Your task to perform on an android device: Open the Play Movies app and select the watchlist tab. Image 0: 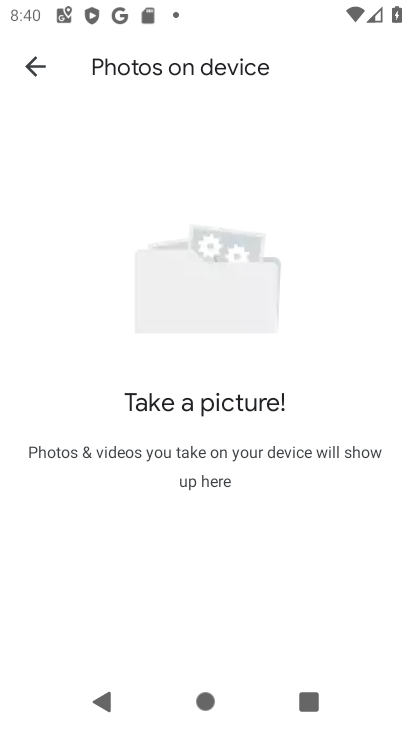
Step 0: press home button
Your task to perform on an android device: Open the Play Movies app and select the watchlist tab. Image 1: 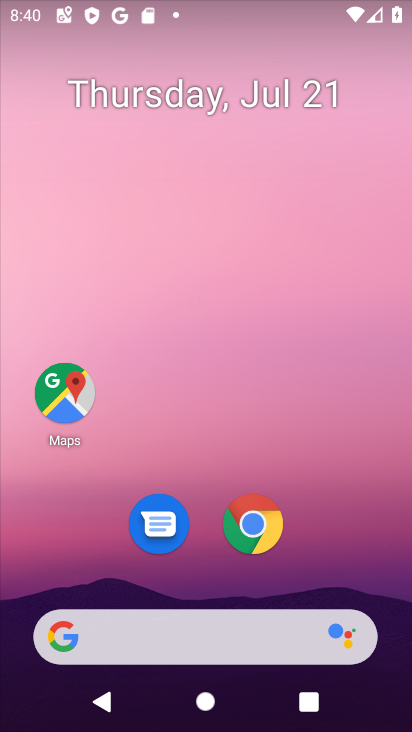
Step 1: drag from (207, 595) to (307, 156)
Your task to perform on an android device: Open the Play Movies app and select the watchlist tab. Image 2: 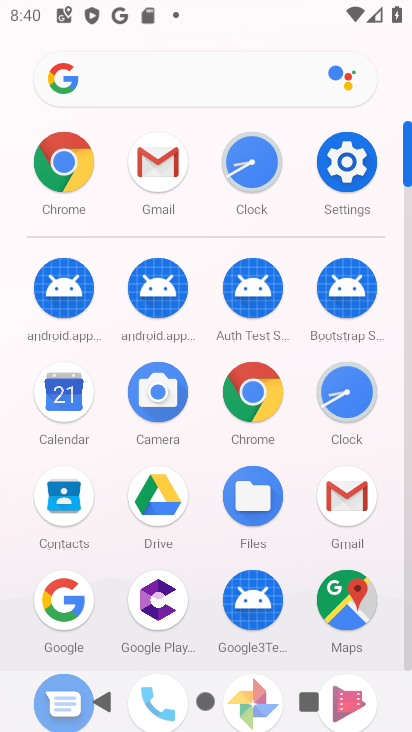
Step 2: drag from (305, 661) to (389, 138)
Your task to perform on an android device: Open the Play Movies app and select the watchlist tab. Image 3: 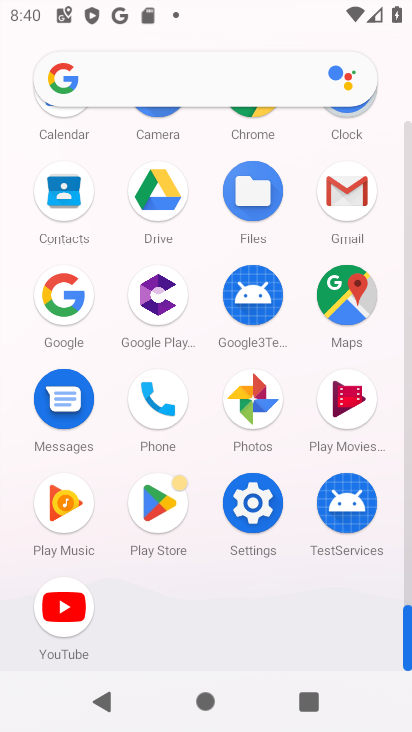
Step 3: click (344, 408)
Your task to perform on an android device: Open the Play Movies app and select the watchlist tab. Image 4: 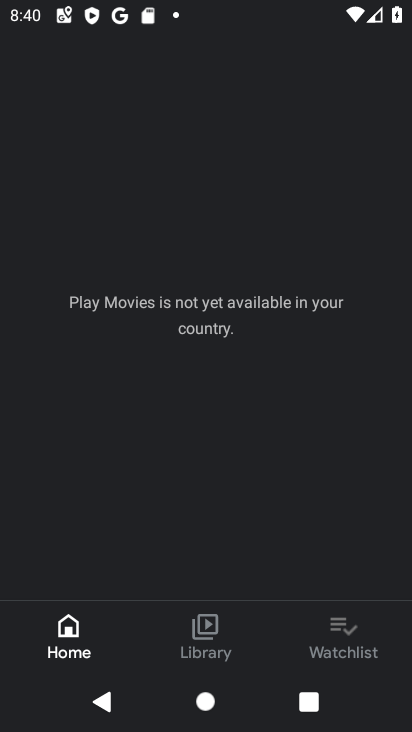
Step 4: click (337, 636)
Your task to perform on an android device: Open the Play Movies app and select the watchlist tab. Image 5: 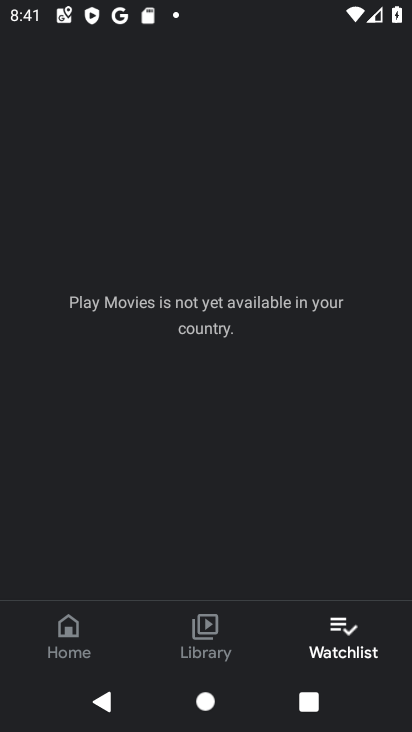
Step 5: task complete